Your task to perform on an android device: open app "Venmo" (install if not already installed) and go to login screen Image 0: 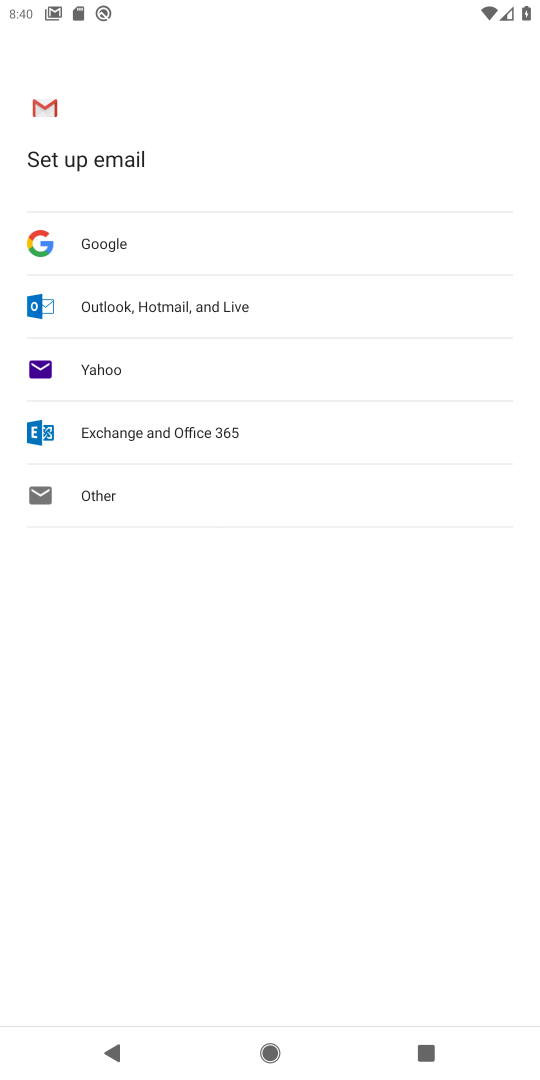
Step 0: press home button
Your task to perform on an android device: open app "Venmo" (install if not already installed) and go to login screen Image 1: 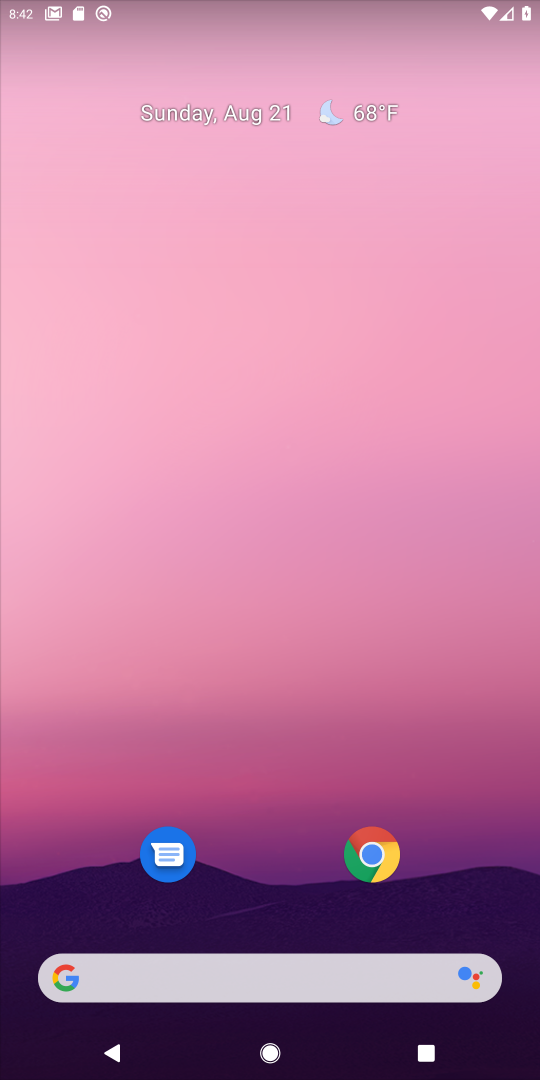
Step 1: drag from (282, 936) to (265, 151)
Your task to perform on an android device: open app "Venmo" (install if not already installed) and go to login screen Image 2: 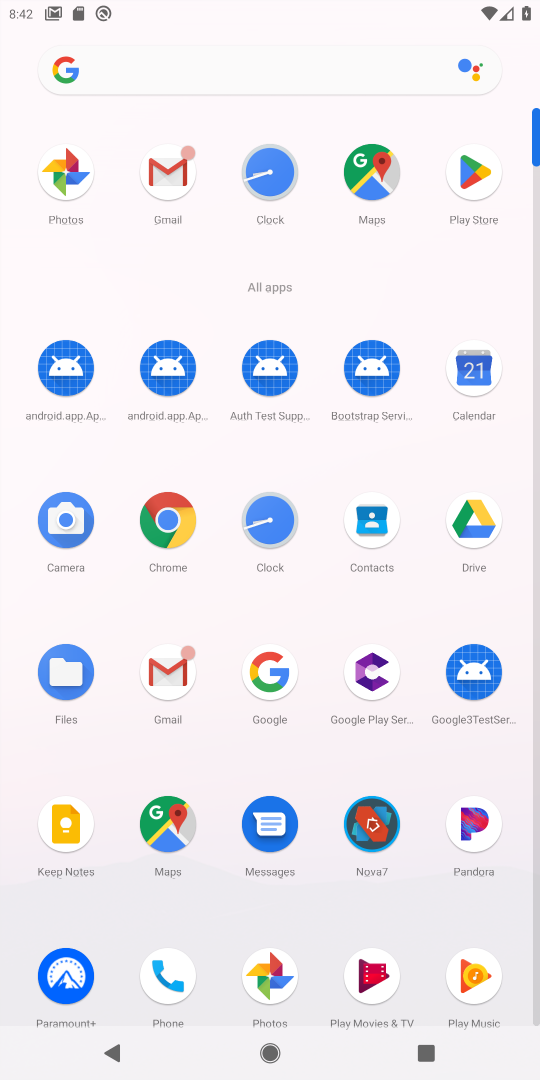
Step 2: click (460, 193)
Your task to perform on an android device: open app "Venmo" (install if not already installed) and go to login screen Image 3: 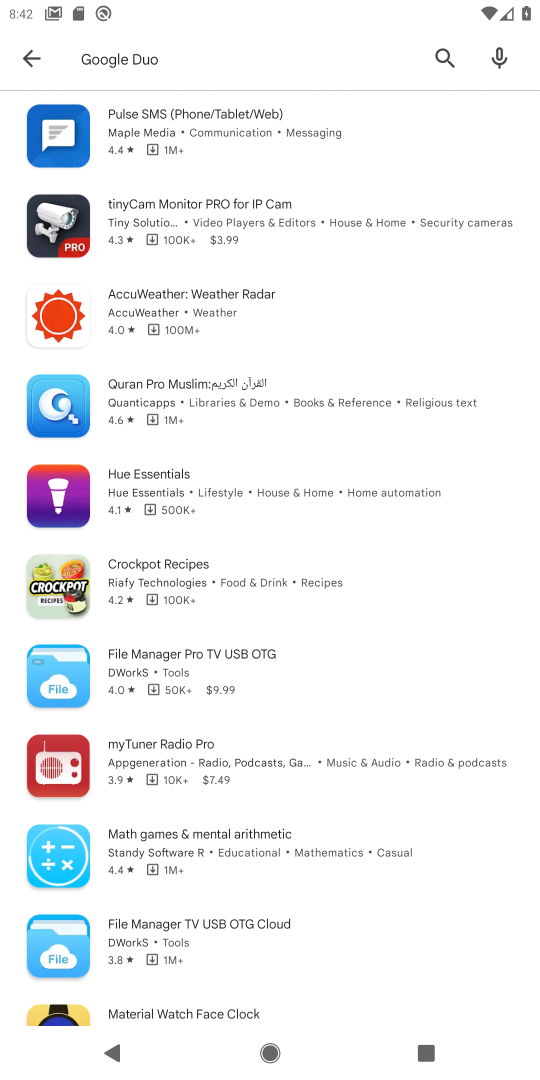
Step 3: click (451, 51)
Your task to perform on an android device: open app "Venmo" (install if not already installed) and go to login screen Image 4: 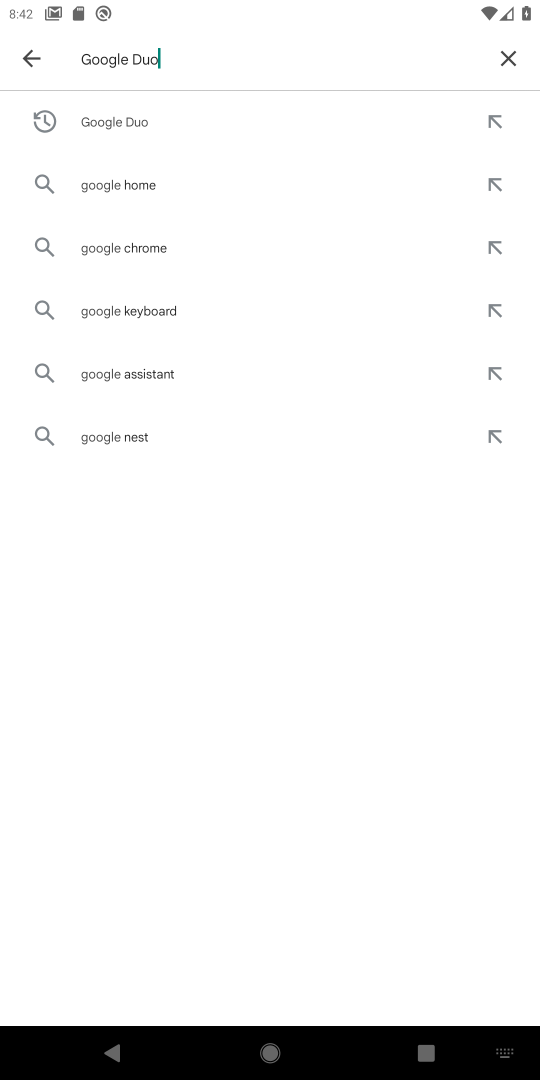
Step 4: click (508, 51)
Your task to perform on an android device: open app "Venmo" (install if not already installed) and go to login screen Image 5: 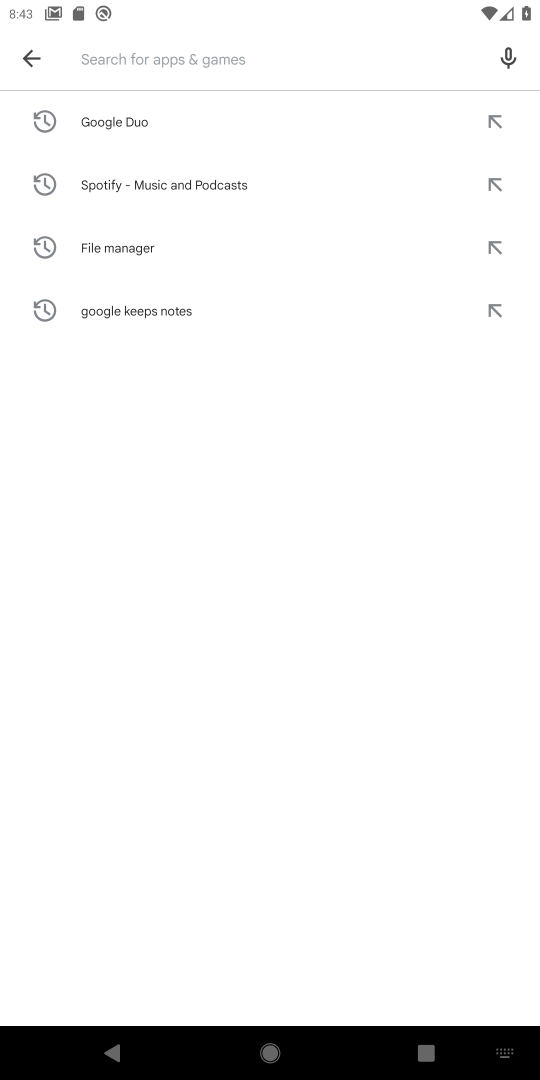
Step 5: type "venmo"
Your task to perform on an android device: open app "Venmo" (install if not already installed) and go to login screen Image 6: 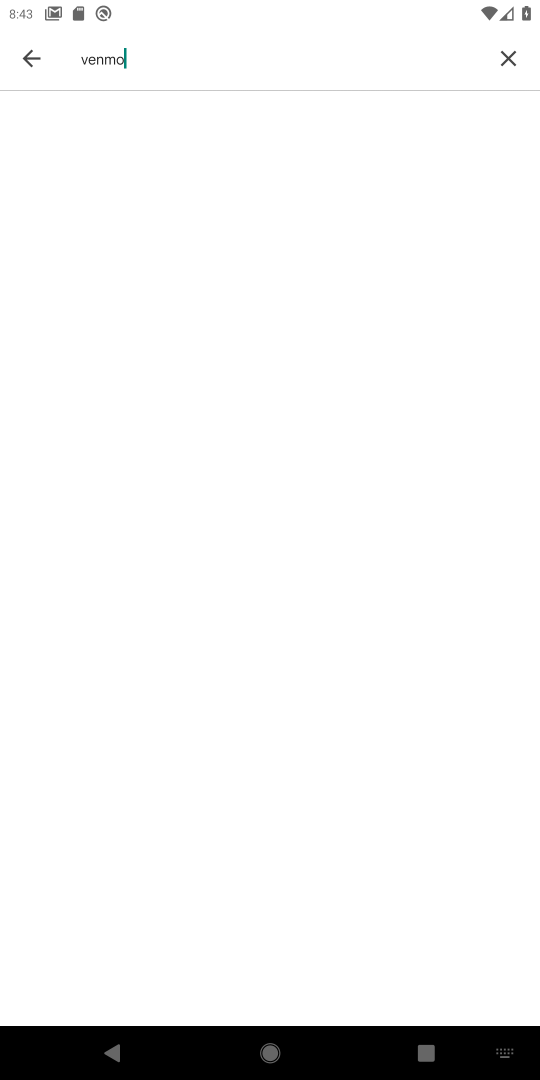
Step 6: task complete